Your task to perform on an android device: Go to sound settings Image 0: 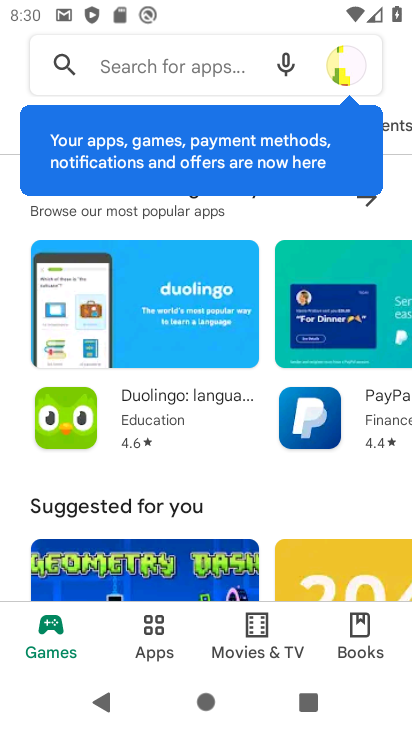
Step 0: press home button
Your task to perform on an android device: Go to sound settings Image 1: 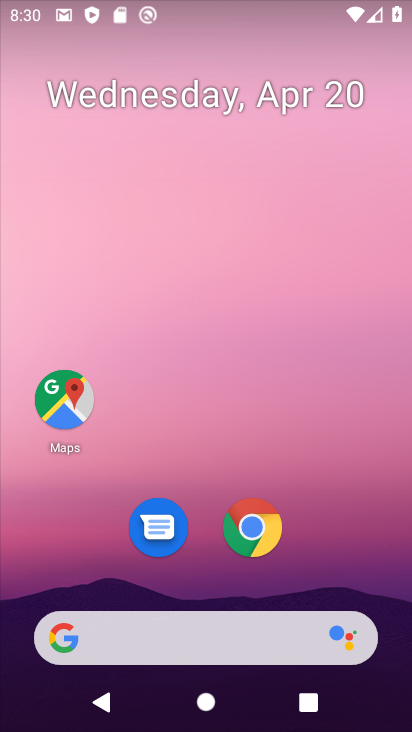
Step 1: drag from (339, 570) to (373, 30)
Your task to perform on an android device: Go to sound settings Image 2: 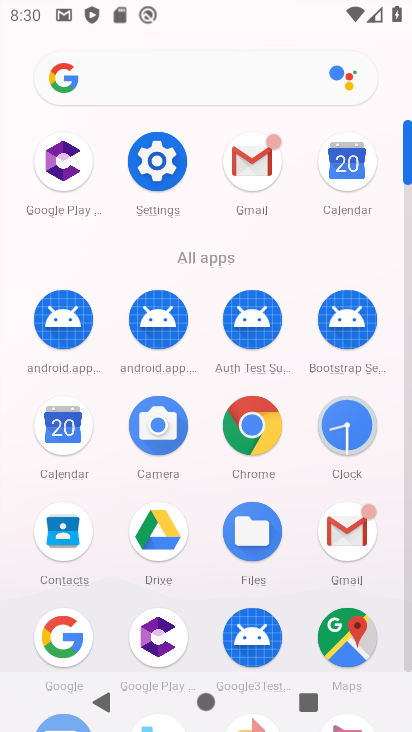
Step 2: click (150, 163)
Your task to perform on an android device: Go to sound settings Image 3: 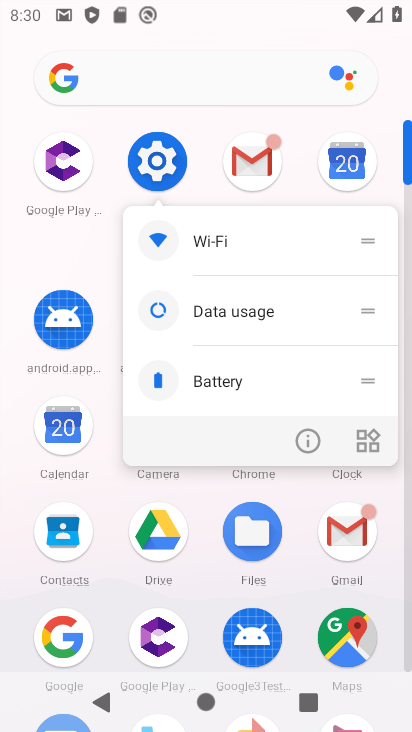
Step 3: click (170, 175)
Your task to perform on an android device: Go to sound settings Image 4: 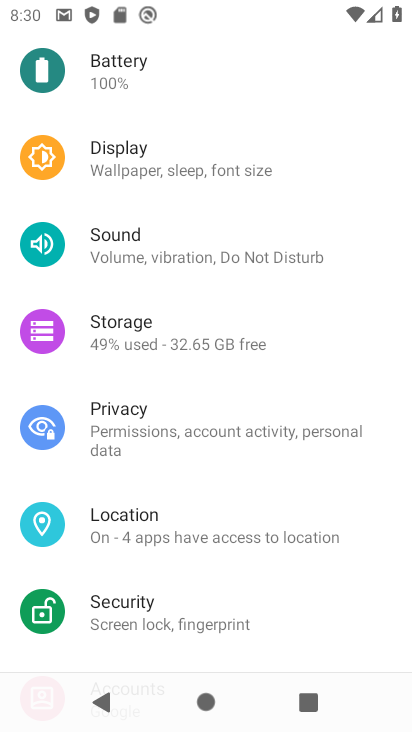
Step 4: click (171, 238)
Your task to perform on an android device: Go to sound settings Image 5: 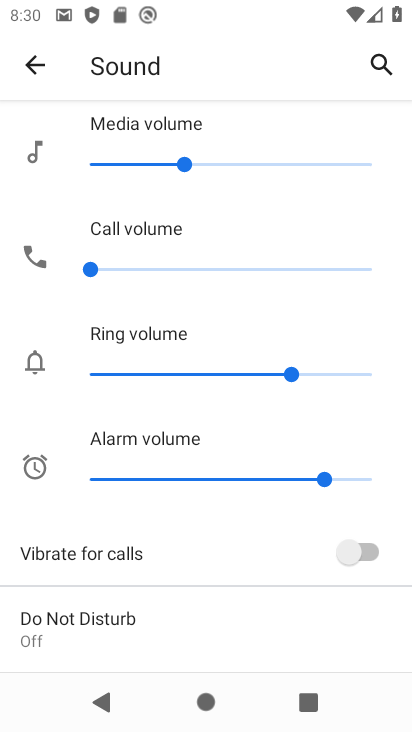
Step 5: task complete